Your task to perform on an android device: change notifications settings Image 0: 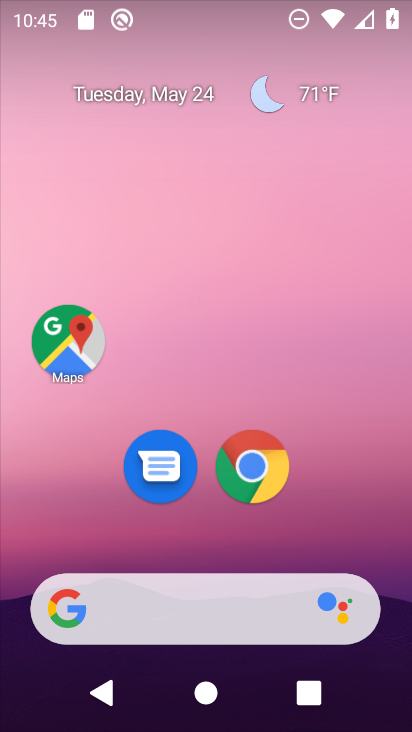
Step 0: drag from (189, 548) to (282, 13)
Your task to perform on an android device: change notifications settings Image 1: 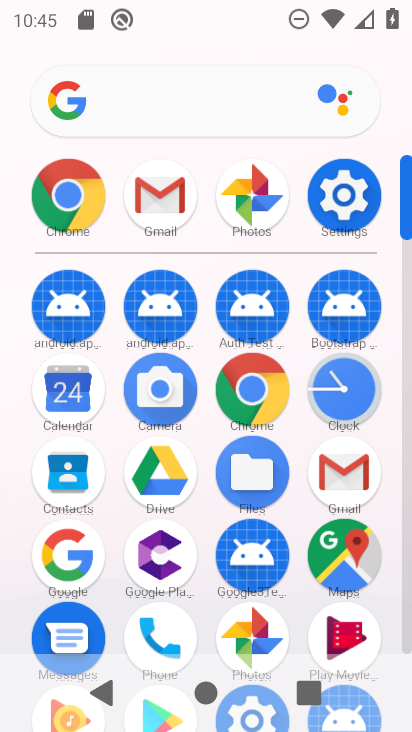
Step 1: click (345, 224)
Your task to perform on an android device: change notifications settings Image 2: 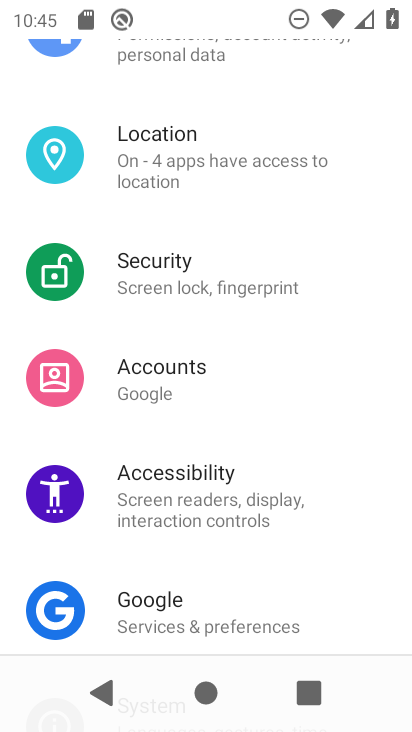
Step 2: drag from (188, 205) to (192, 638)
Your task to perform on an android device: change notifications settings Image 3: 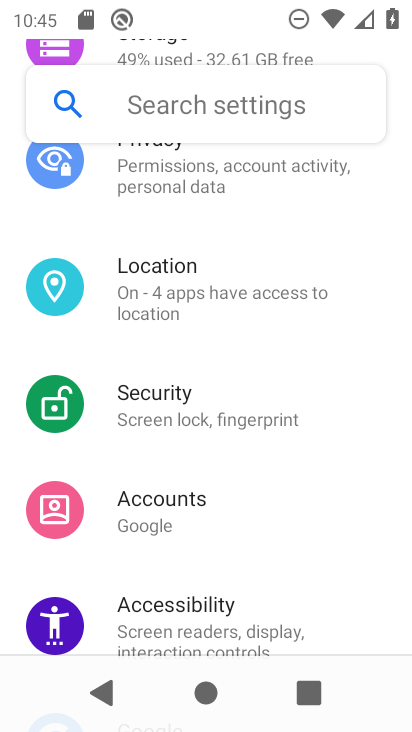
Step 3: drag from (190, 254) to (236, 637)
Your task to perform on an android device: change notifications settings Image 4: 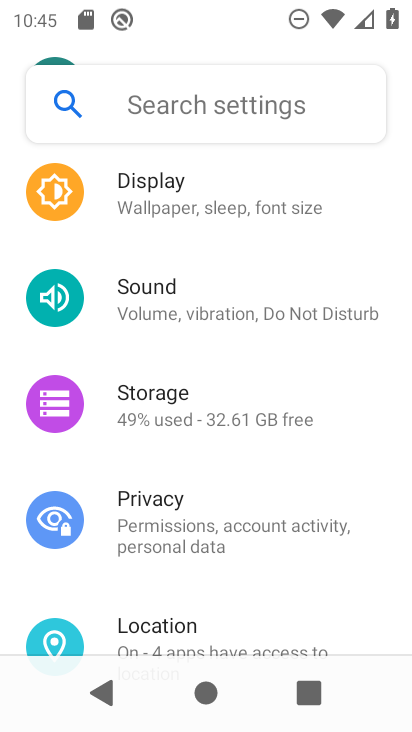
Step 4: drag from (255, 268) to (249, 670)
Your task to perform on an android device: change notifications settings Image 5: 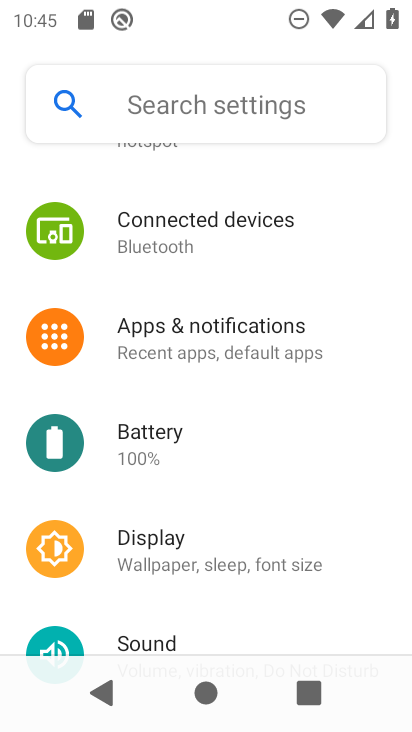
Step 5: click (211, 352)
Your task to perform on an android device: change notifications settings Image 6: 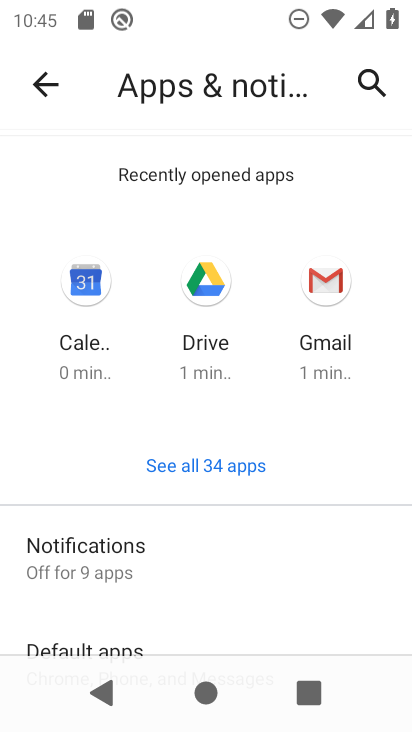
Step 6: drag from (190, 558) to (197, 277)
Your task to perform on an android device: change notifications settings Image 7: 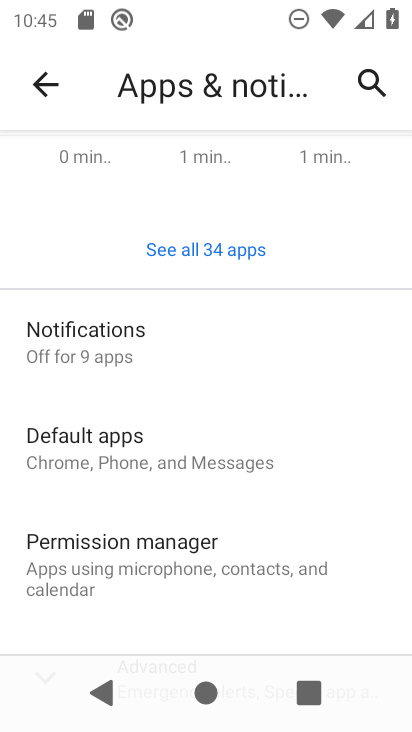
Step 7: click (138, 340)
Your task to perform on an android device: change notifications settings Image 8: 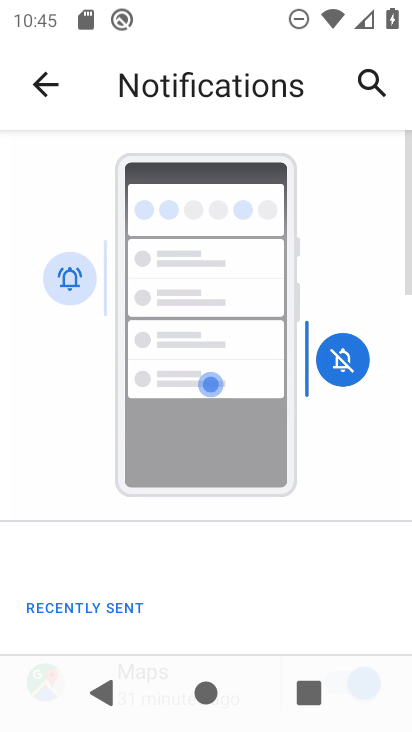
Step 8: drag from (156, 562) to (221, 180)
Your task to perform on an android device: change notifications settings Image 9: 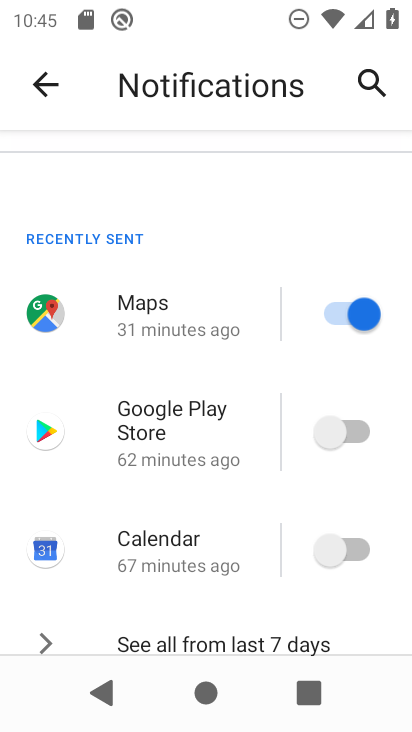
Step 9: drag from (213, 524) to (247, 277)
Your task to perform on an android device: change notifications settings Image 10: 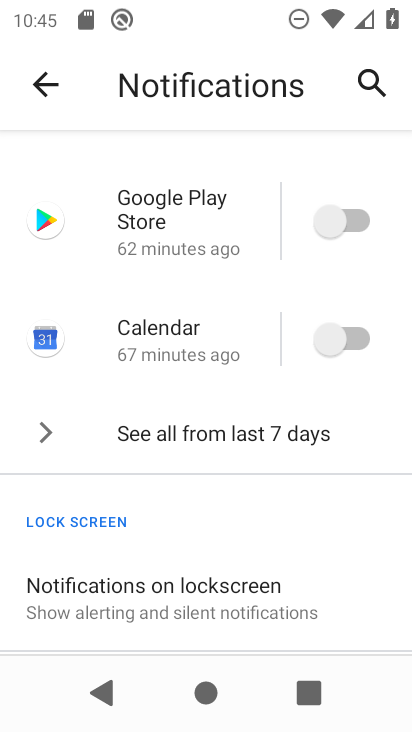
Step 10: click (225, 445)
Your task to perform on an android device: change notifications settings Image 11: 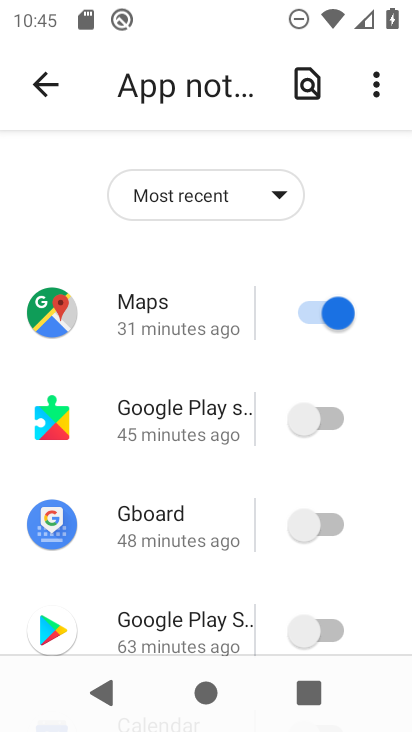
Step 11: click (316, 301)
Your task to perform on an android device: change notifications settings Image 12: 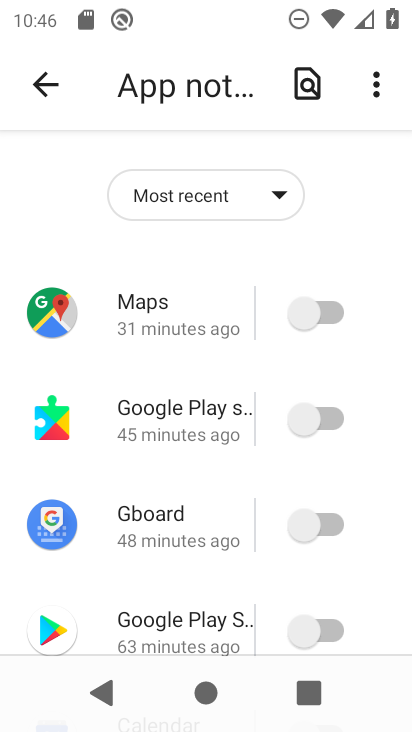
Step 12: drag from (216, 595) to (208, 106)
Your task to perform on an android device: change notifications settings Image 13: 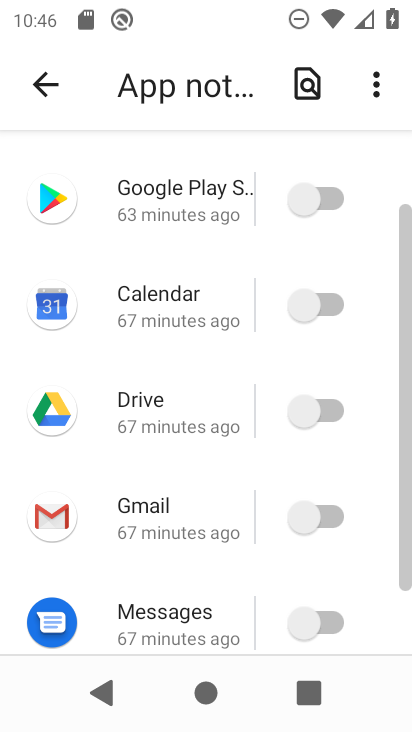
Step 13: drag from (214, 524) to (230, 116)
Your task to perform on an android device: change notifications settings Image 14: 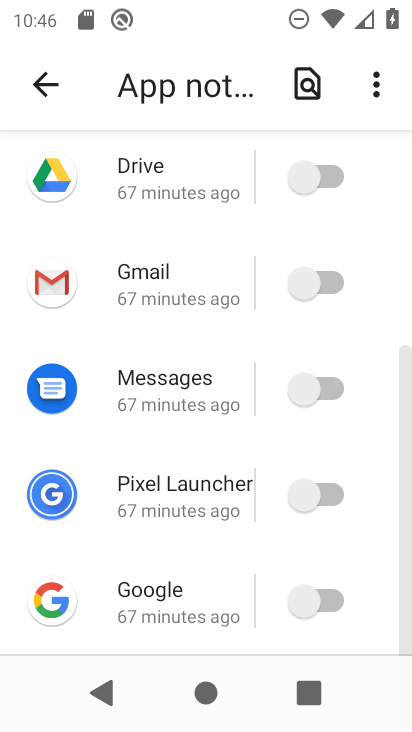
Step 14: drag from (219, 555) to (270, 90)
Your task to perform on an android device: change notifications settings Image 15: 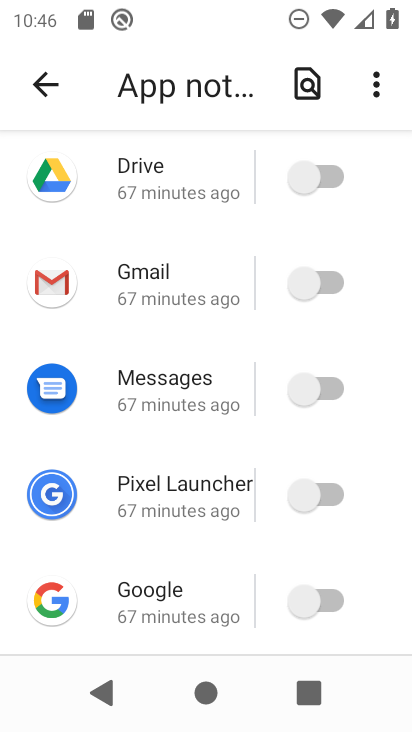
Step 15: click (339, 603)
Your task to perform on an android device: change notifications settings Image 16: 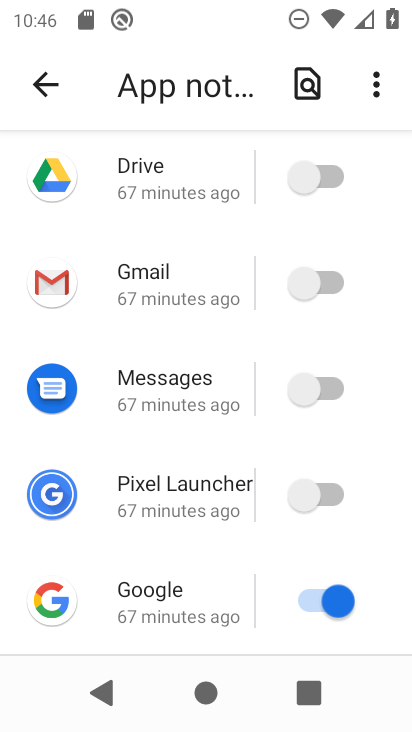
Step 16: click (337, 487)
Your task to perform on an android device: change notifications settings Image 17: 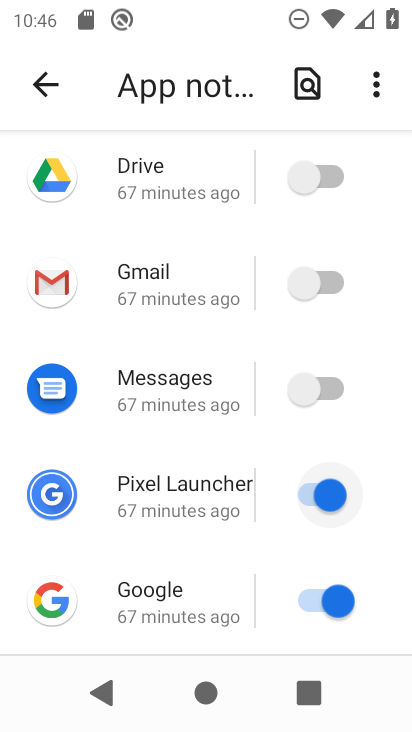
Step 17: click (335, 411)
Your task to perform on an android device: change notifications settings Image 18: 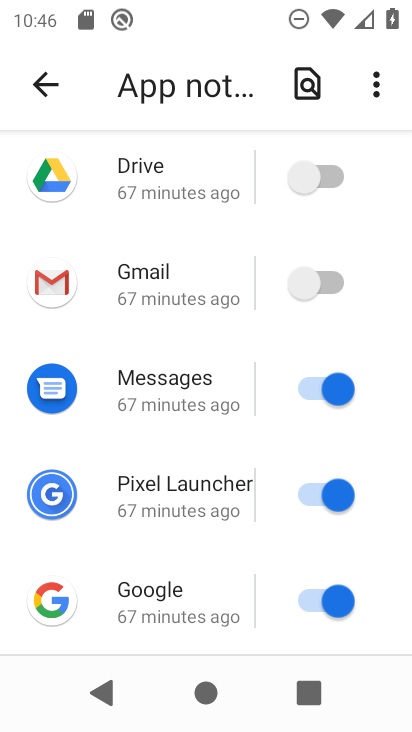
Step 18: click (333, 312)
Your task to perform on an android device: change notifications settings Image 19: 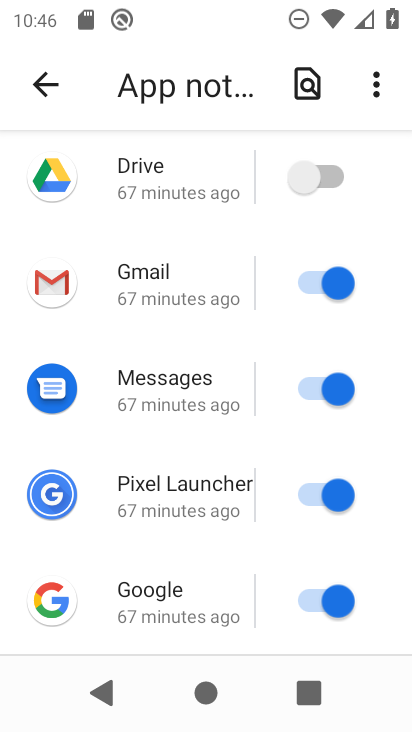
Step 19: click (342, 175)
Your task to perform on an android device: change notifications settings Image 20: 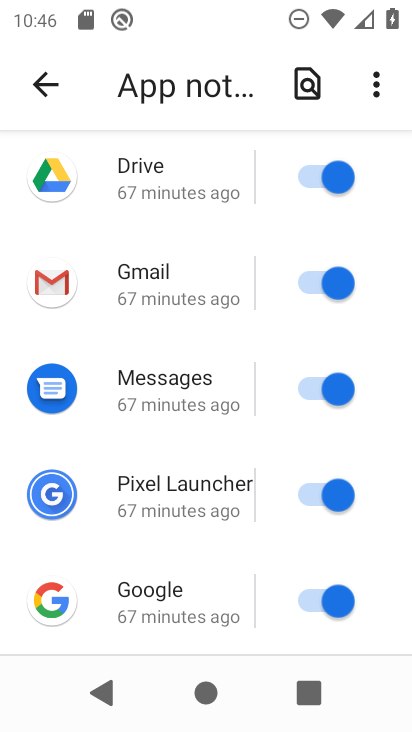
Step 20: drag from (280, 259) to (264, 622)
Your task to perform on an android device: change notifications settings Image 21: 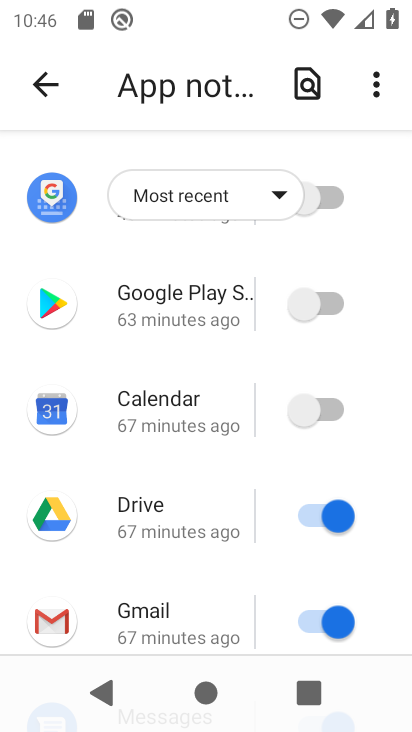
Step 21: click (320, 407)
Your task to perform on an android device: change notifications settings Image 22: 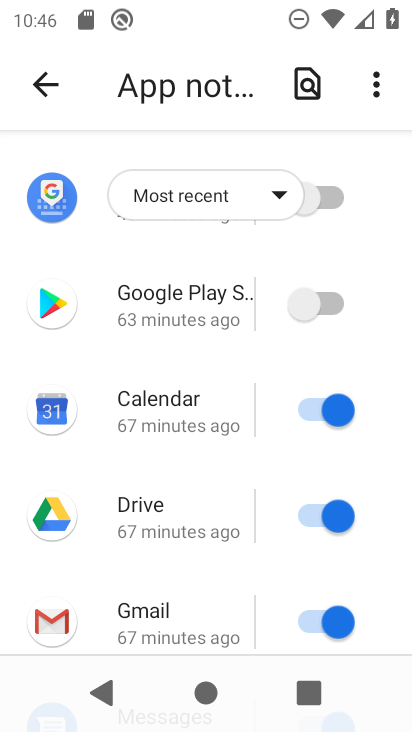
Step 22: click (341, 300)
Your task to perform on an android device: change notifications settings Image 23: 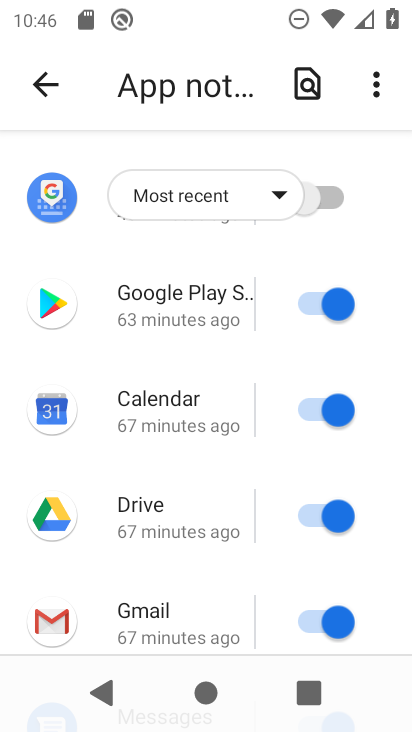
Step 23: drag from (337, 289) to (352, 493)
Your task to perform on an android device: change notifications settings Image 24: 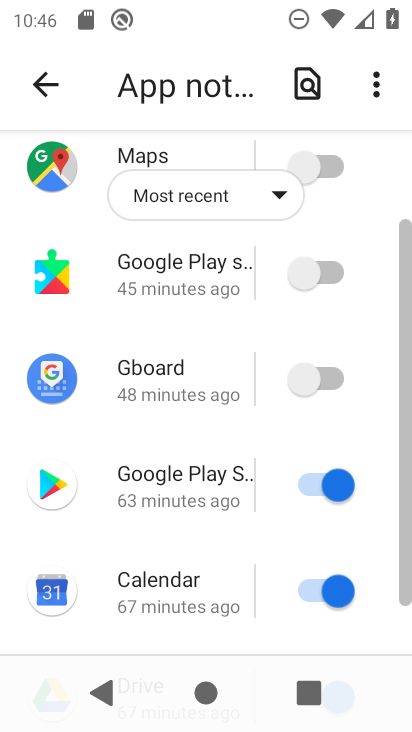
Step 24: click (320, 351)
Your task to perform on an android device: change notifications settings Image 25: 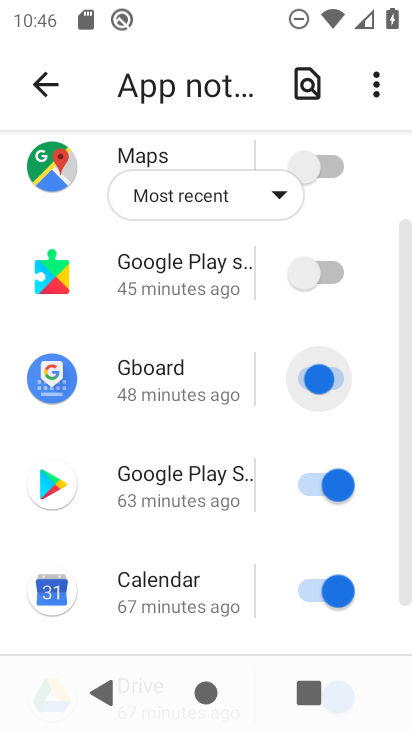
Step 25: click (319, 264)
Your task to perform on an android device: change notifications settings Image 26: 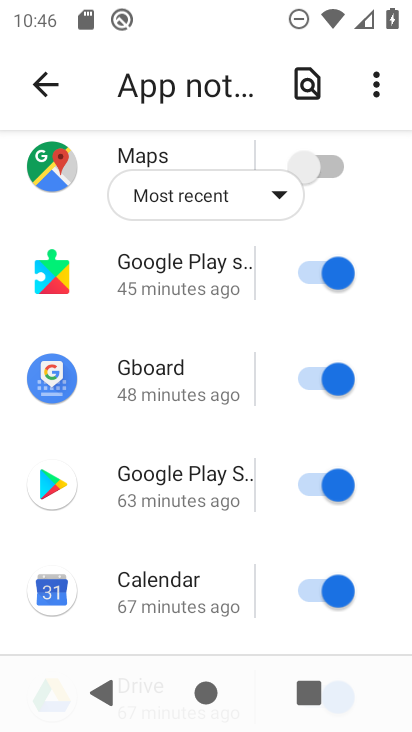
Step 26: click (337, 171)
Your task to perform on an android device: change notifications settings Image 27: 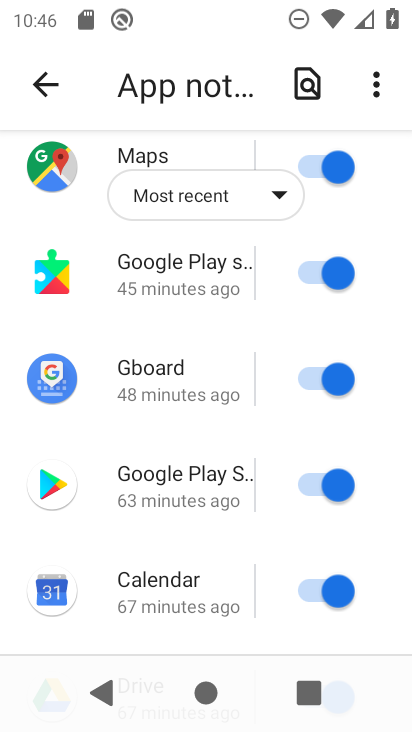
Step 27: task complete